Your task to perform on an android device: check the backup settings in the google photos Image 0: 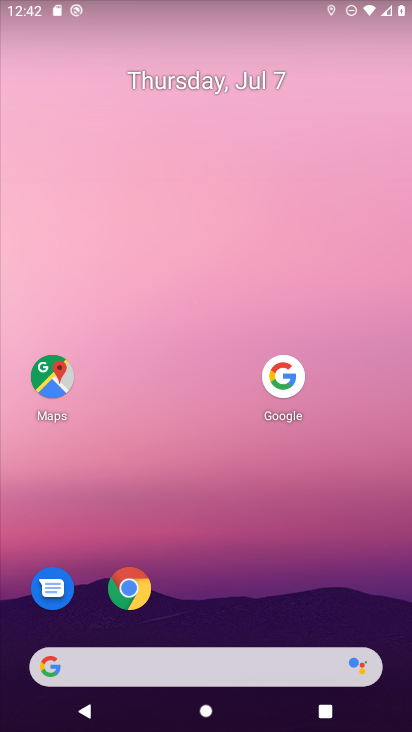
Step 0: drag from (197, 655) to (355, 88)
Your task to perform on an android device: check the backup settings in the google photos Image 1: 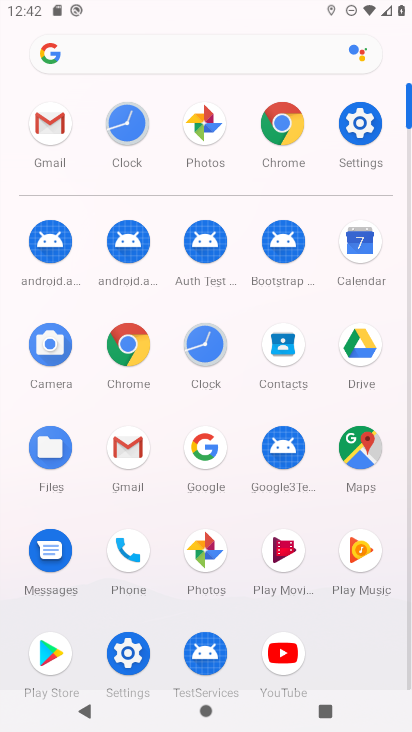
Step 1: click (210, 544)
Your task to perform on an android device: check the backup settings in the google photos Image 2: 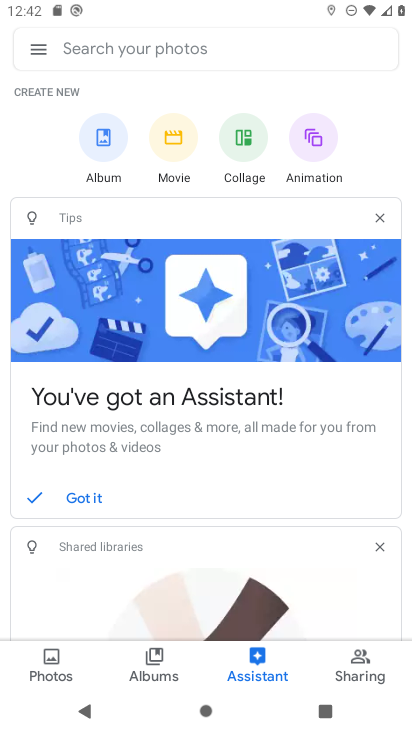
Step 2: click (38, 46)
Your task to perform on an android device: check the backup settings in the google photos Image 3: 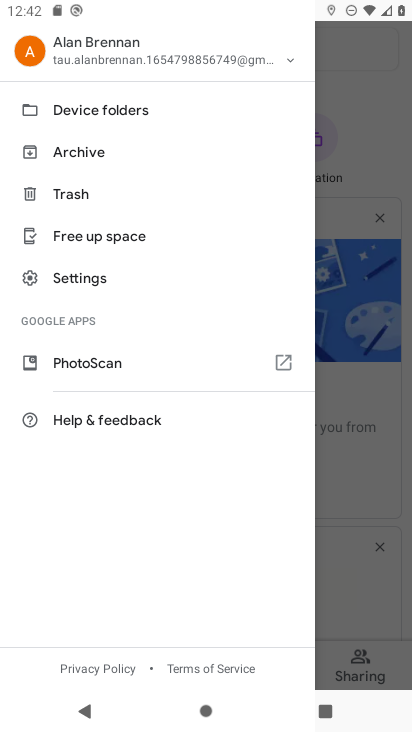
Step 3: click (96, 281)
Your task to perform on an android device: check the backup settings in the google photos Image 4: 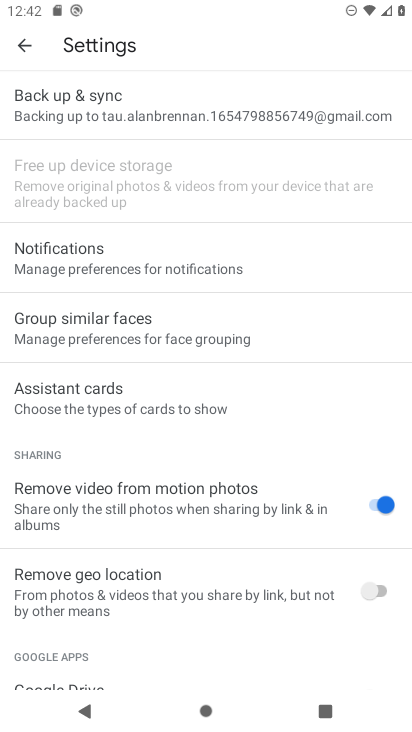
Step 4: click (207, 117)
Your task to perform on an android device: check the backup settings in the google photos Image 5: 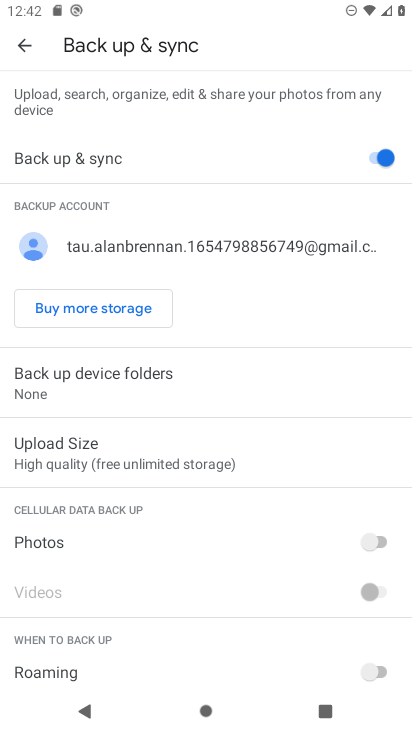
Step 5: task complete